Your task to perform on an android device: Open internet settings Image 0: 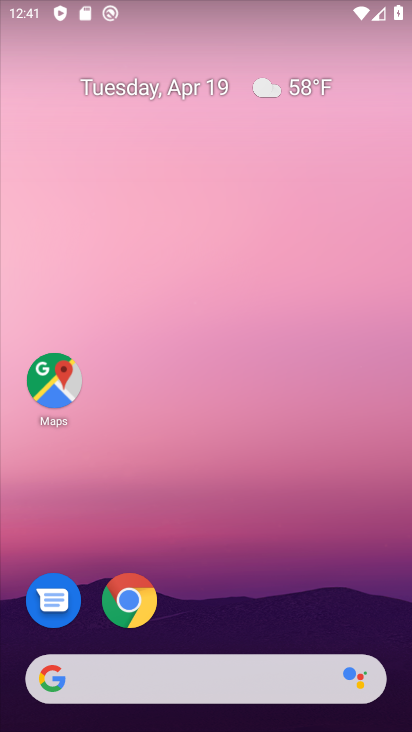
Step 0: drag from (405, 581) to (239, 177)
Your task to perform on an android device: Open internet settings Image 1: 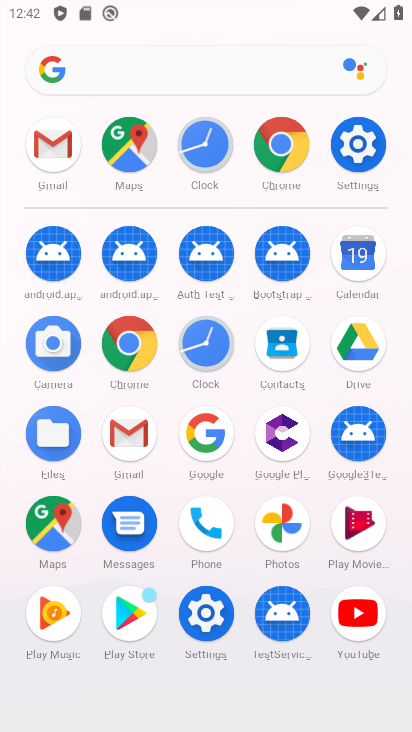
Step 1: click (366, 165)
Your task to perform on an android device: Open internet settings Image 2: 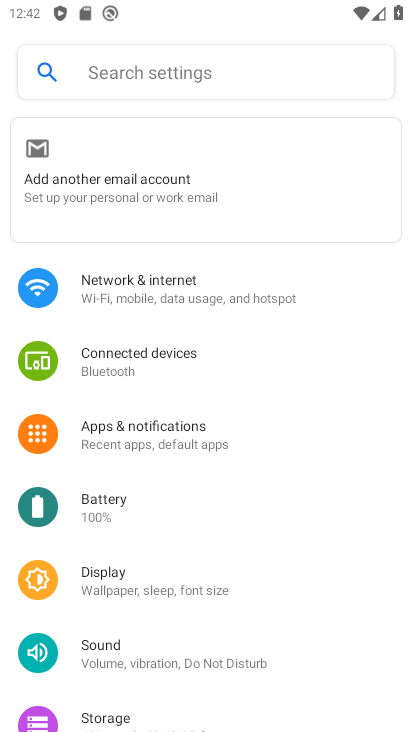
Step 2: click (303, 290)
Your task to perform on an android device: Open internet settings Image 3: 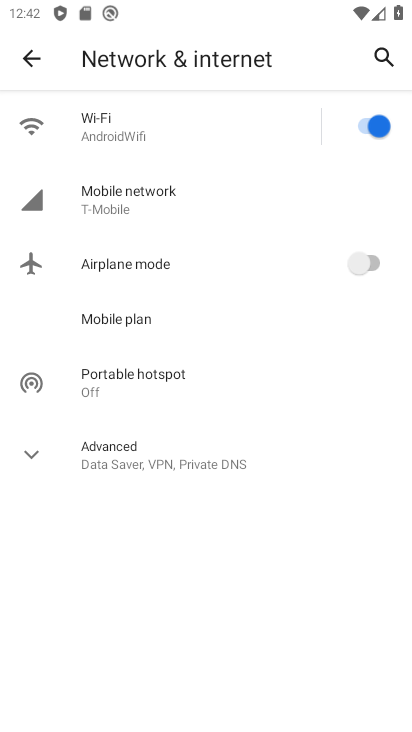
Step 3: task complete